Your task to perform on an android device: Set an alarm for 10am Image 0: 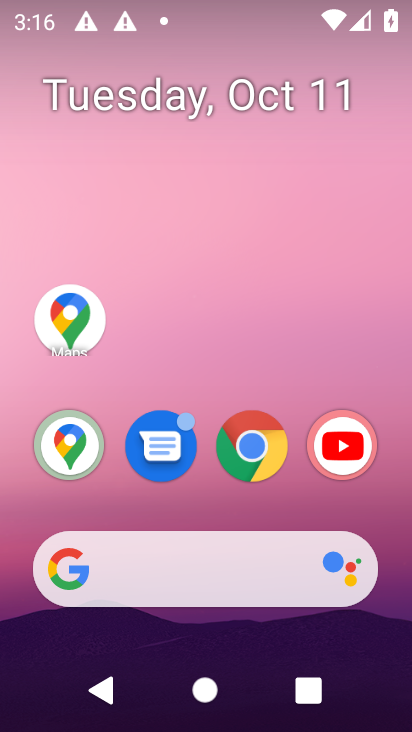
Step 0: drag from (216, 402) to (213, 85)
Your task to perform on an android device: Set an alarm for 10am Image 1: 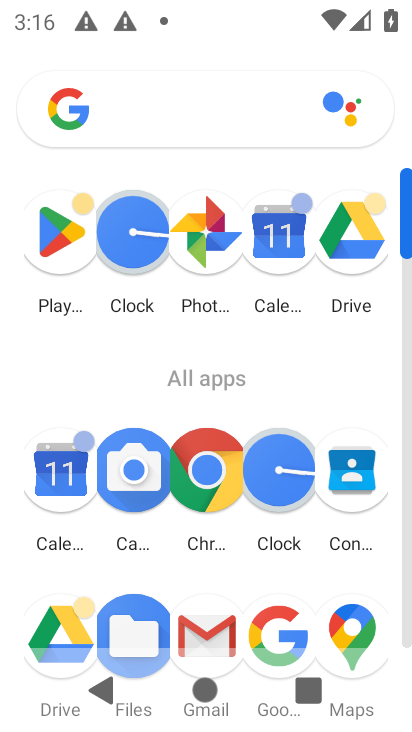
Step 1: click (138, 242)
Your task to perform on an android device: Set an alarm for 10am Image 2: 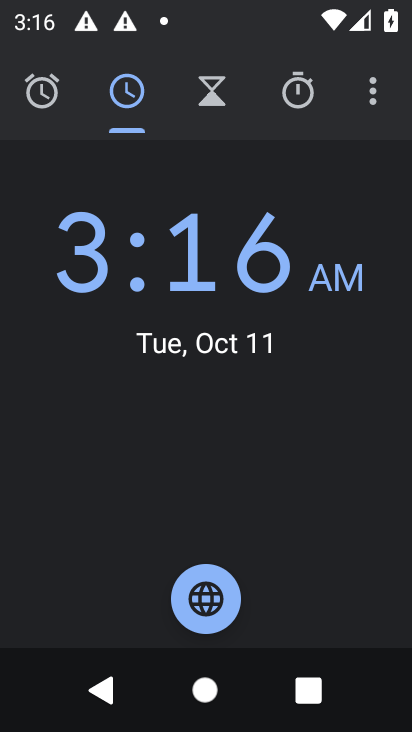
Step 2: click (42, 94)
Your task to perform on an android device: Set an alarm for 10am Image 3: 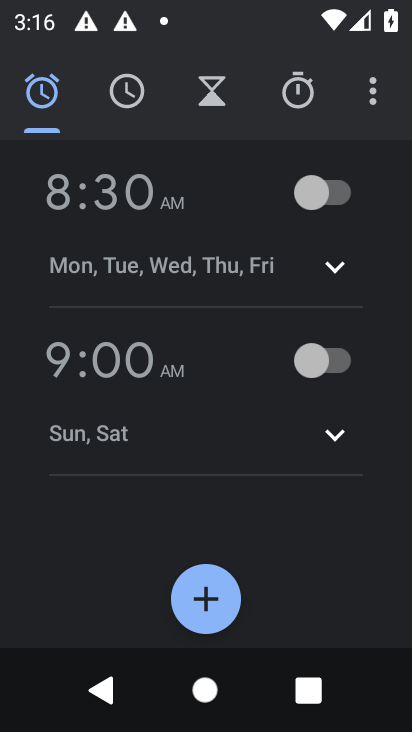
Step 3: click (208, 603)
Your task to perform on an android device: Set an alarm for 10am Image 4: 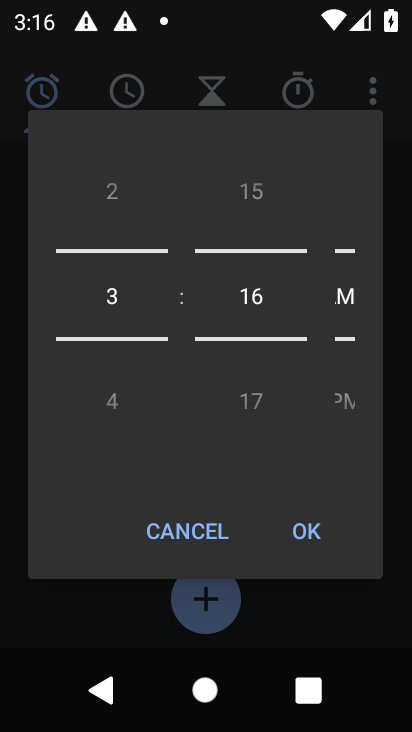
Step 4: drag from (116, 389) to (104, 194)
Your task to perform on an android device: Set an alarm for 10am Image 5: 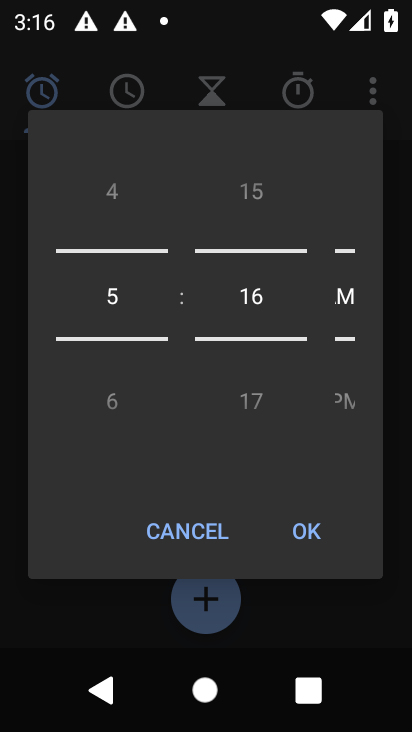
Step 5: drag from (113, 405) to (116, 184)
Your task to perform on an android device: Set an alarm for 10am Image 6: 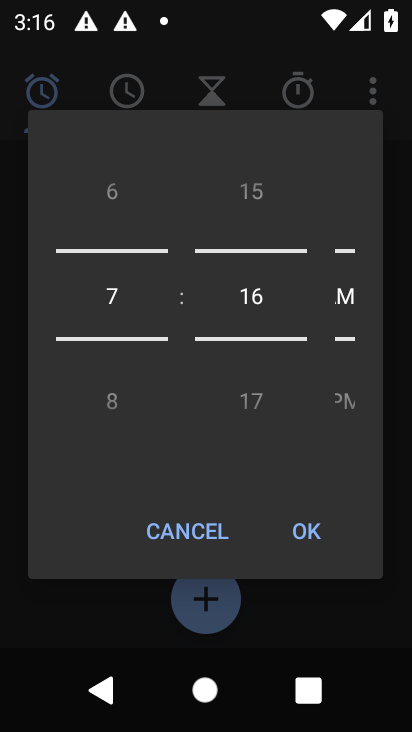
Step 6: drag from (117, 401) to (113, 218)
Your task to perform on an android device: Set an alarm for 10am Image 7: 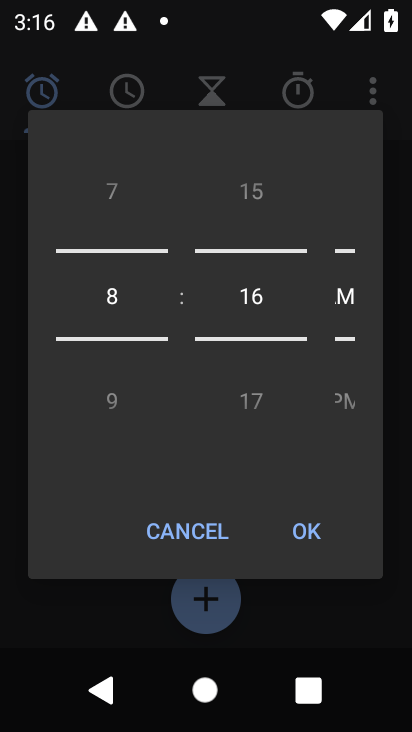
Step 7: drag from (103, 376) to (122, 183)
Your task to perform on an android device: Set an alarm for 10am Image 8: 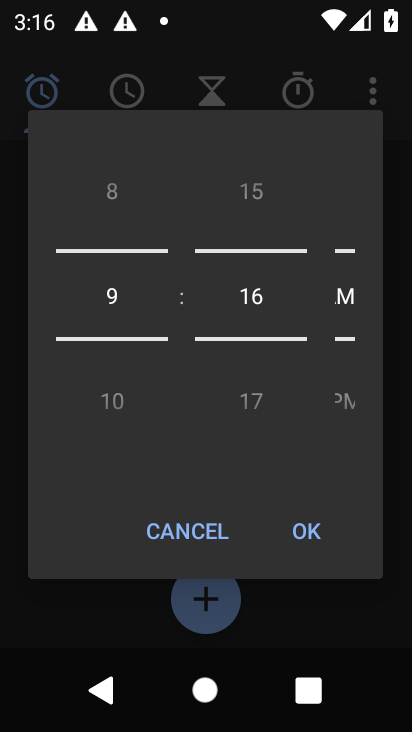
Step 8: drag from (120, 384) to (133, 183)
Your task to perform on an android device: Set an alarm for 10am Image 9: 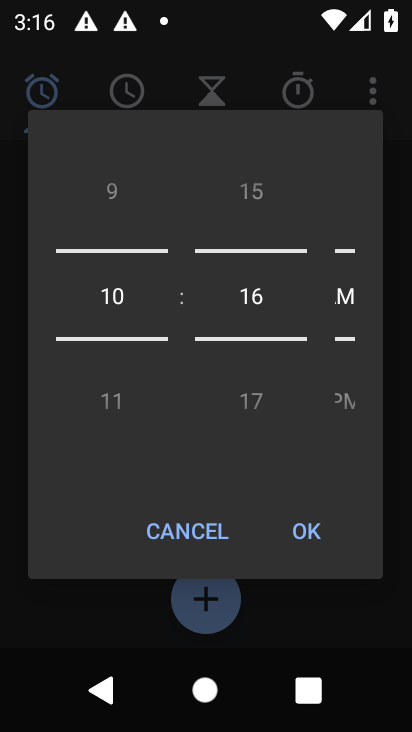
Step 9: drag from (257, 298) to (255, 457)
Your task to perform on an android device: Set an alarm for 10am Image 10: 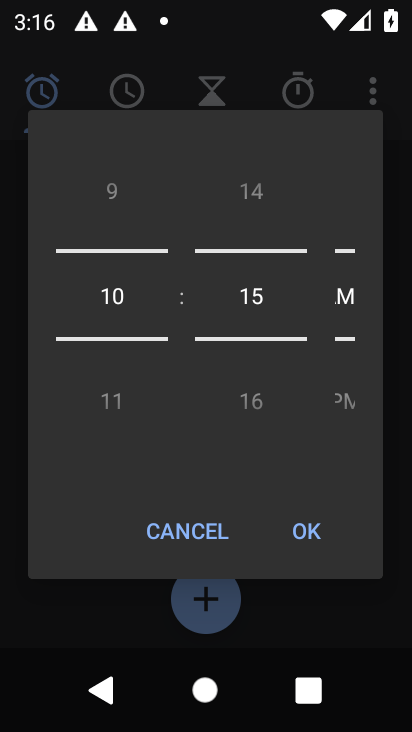
Step 10: drag from (255, 256) to (239, 525)
Your task to perform on an android device: Set an alarm for 10am Image 11: 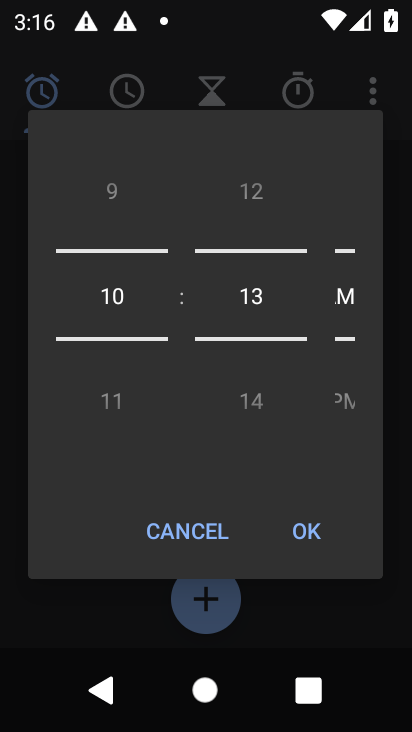
Step 11: drag from (262, 285) to (247, 537)
Your task to perform on an android device: Set an alarm for 10am Image 12: 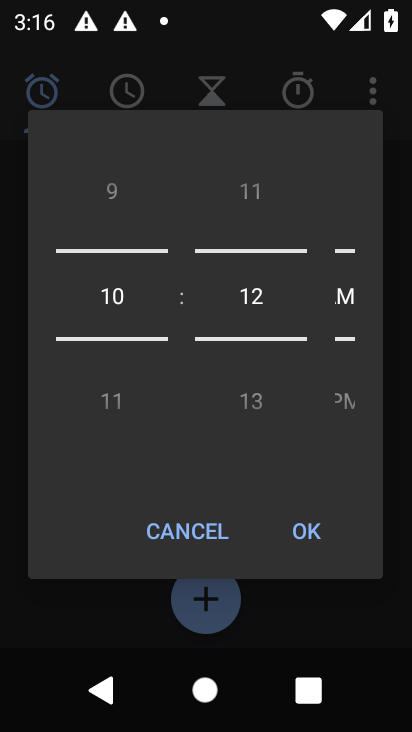
Step 12: drag from (251, 295) to (261, 567)
Your task to perform on an android device: Set an alarm for 10am Image 13: 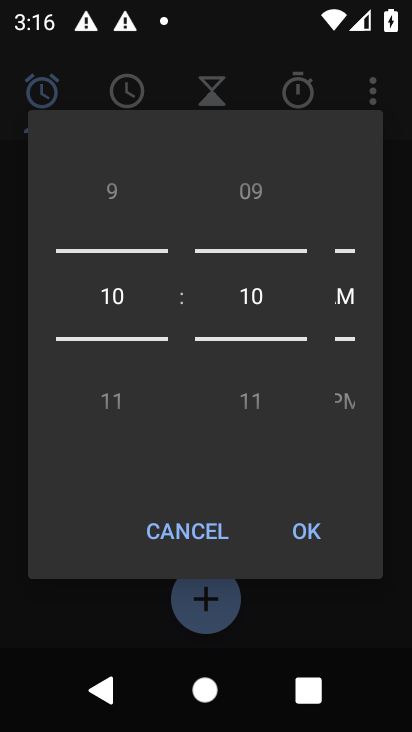
Step 13: drag from (255, 299) to (251, 534)
Your task to perform on an android device: Set an alarm for 10am Image 14: 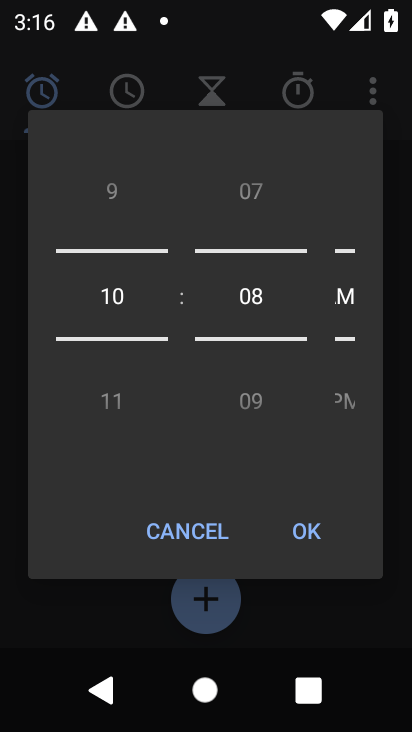
Step 14: drag from (245, 295) to (244, 522)
Your task to perform on an android device: Set an alarm for 10am Image 15: 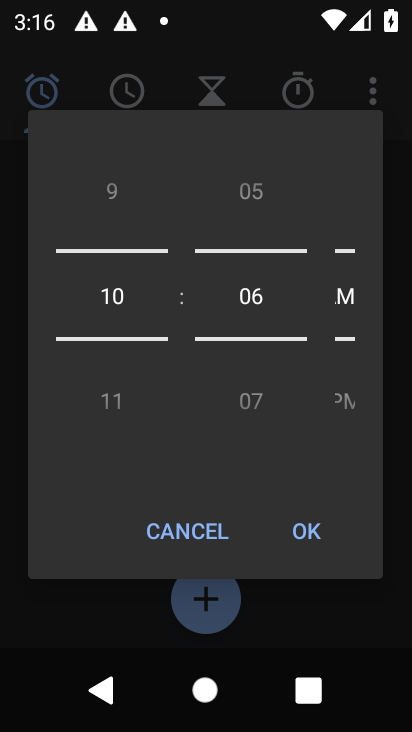
Step 15: drag from (257, 284) to (250, 479)
Your task to perform on an android device: Set an alarm for 10am Image 16: 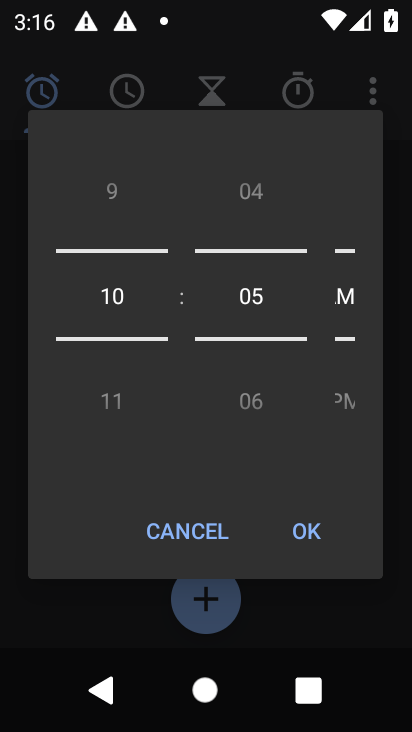
Step 16: drag from (256, 296) to (257, 556)
Your task to perform on an android device: Set an alarm for 10am Image 17: 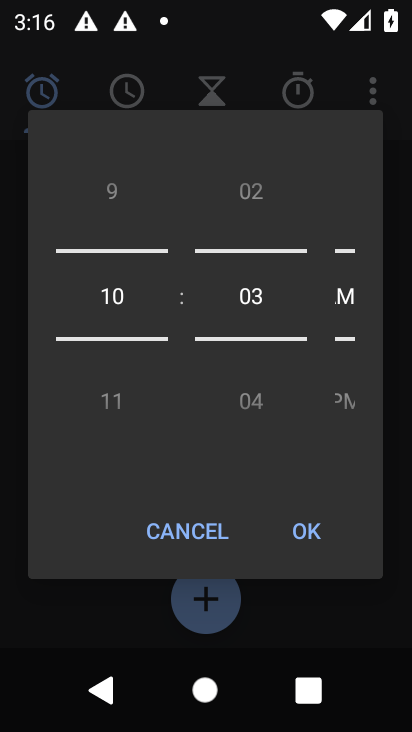
Step 17: drag from (246, 295) to (253, 532)
Your task to perform on an android device: Set an alarm for 10am Image 18: 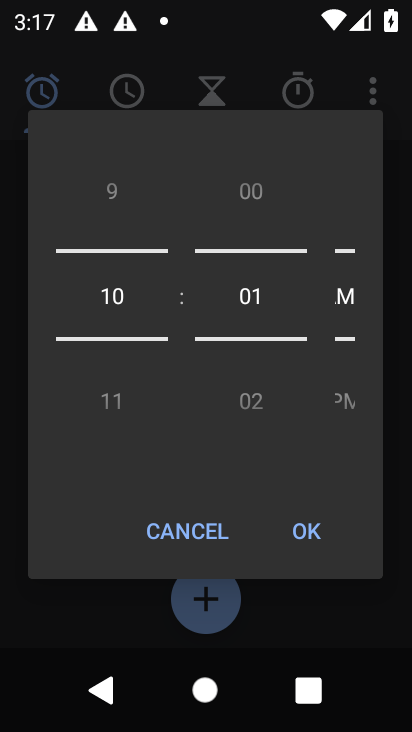
Step 18: drag from (245, 298) to (237, 423)
Your task to perform on an android device: Set an alarm for 10am Image 19: 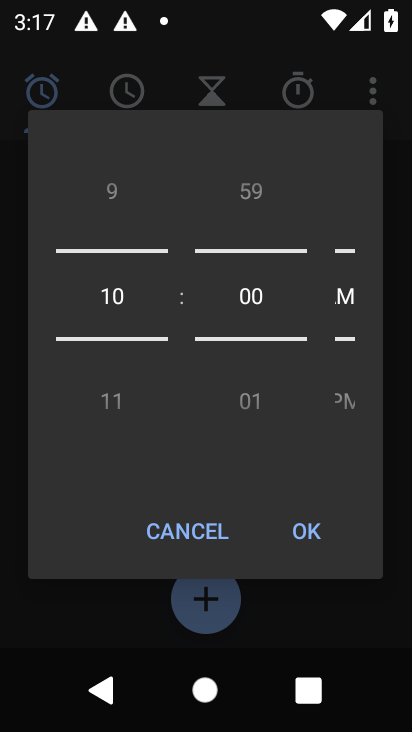
Step 19: click (308, 531)
Your task to perform on an android device: Set an alarm for 10am Image 20: 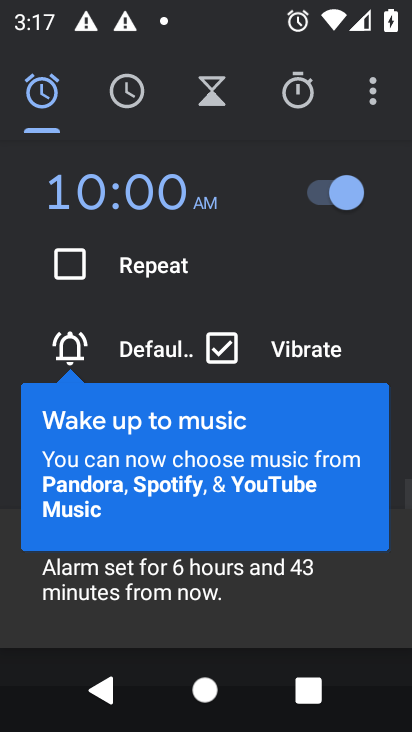
Step 20: task complete